Your task to perform on an android device: Open Chrome and go to settings Image 0: 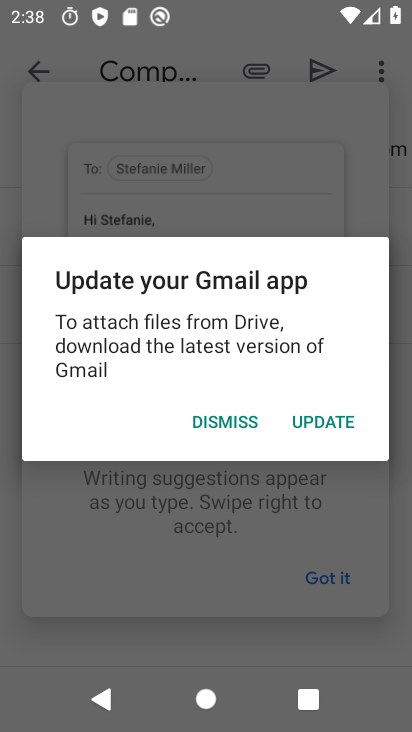
Step 0: press home button
Your task to perform on an android device: Open Chrome and go to settings Image 1: 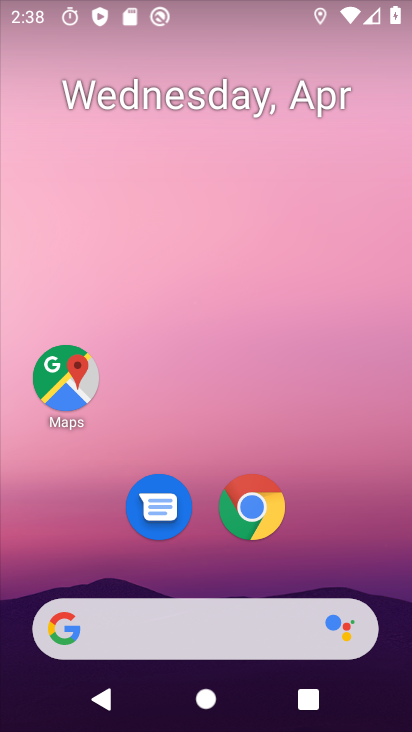
Step 1: click (261, 510)
Your task to perform on an android device: Open Chrome and go to settings Image 2: 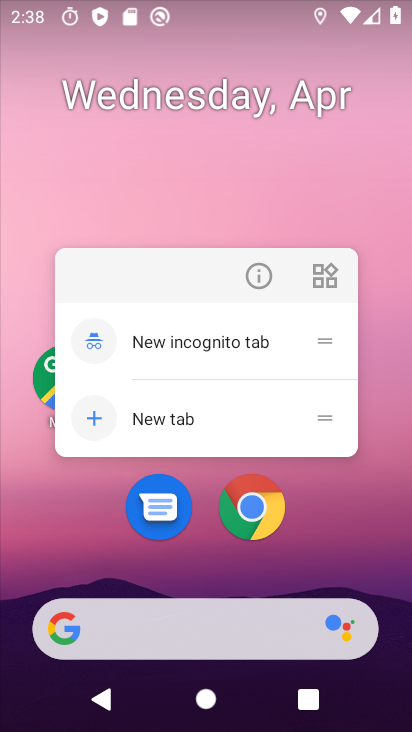
Step 2: click (261, 510)
Your task to perform on an android device: Open Chrome and go to settings Image 3: 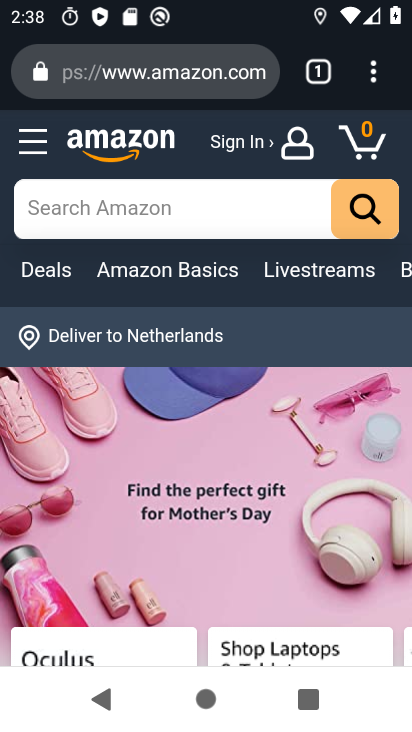
Step 3: task complete